Your task to perform on an android device: turn off notifications settings in the gmail app Image 0: 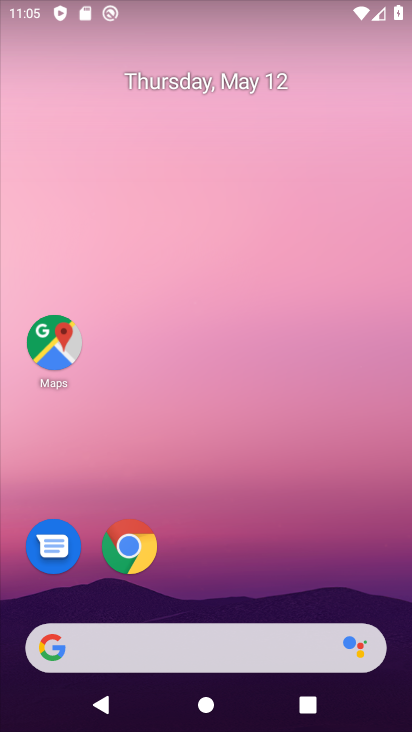
Step 0: drag from (225, 726) to (242, 61)
Your task to perform on an android device: turn off notifications settings in the gmail app Image 1: 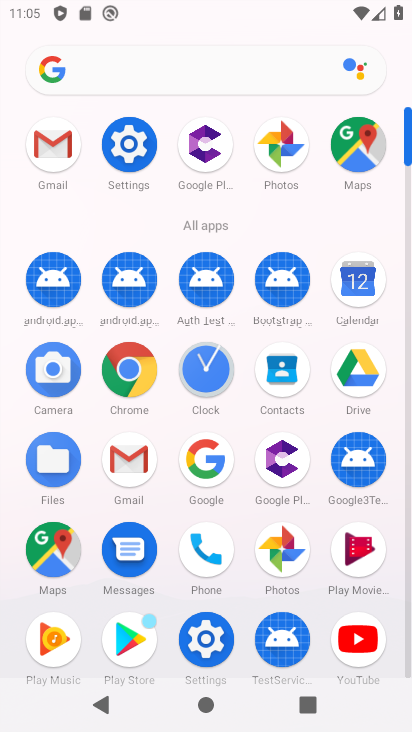
Step 1: click (134, 457)
Your task to perform on an android device: turn off notifications settings in the gmail app Image 2: 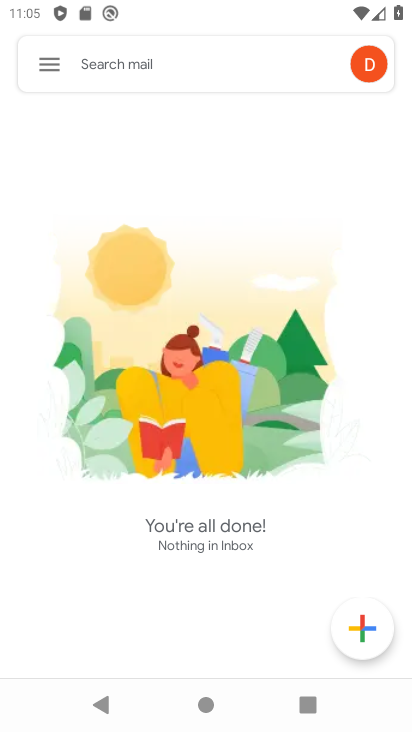
Step 2: click (45, 66)
Your task to perform on an android device: turn off notifications settings in the gmail app Image 3: 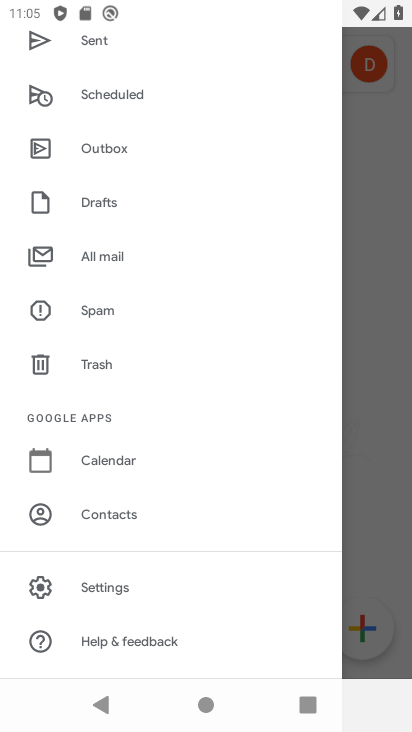
Step 3: click (105, 584)
Your task to perform on an android device: turn off notifications settings in the gmail app Image 4: 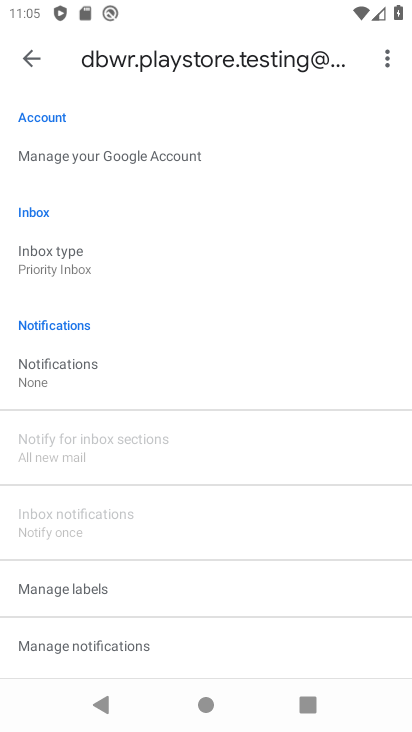
Step 4: task complete